Your task to perform on an android device: open app "Facebook" (install if not already installed) and go to login screen Image 0: 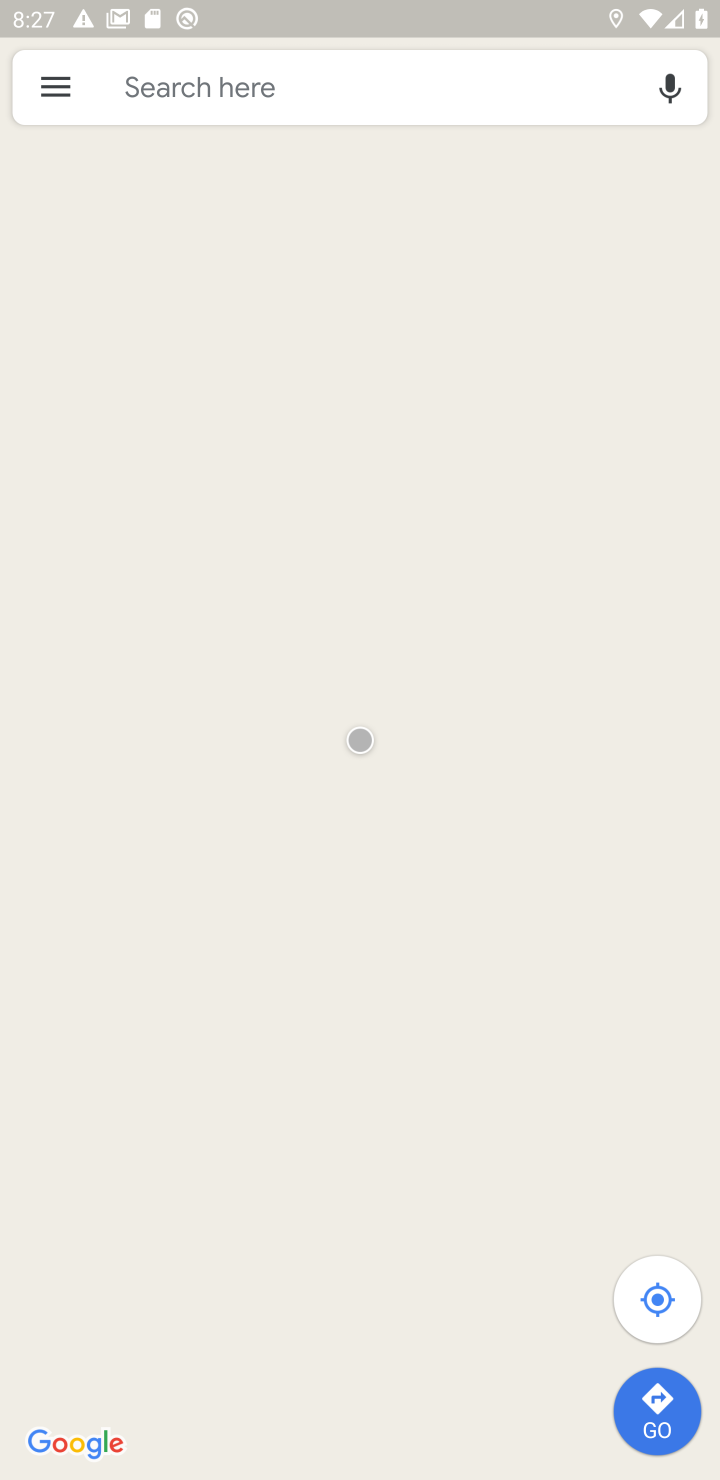
Step 0: press home button
Your task to perform on an android device: open app "Facebook" (install if not already installed) and go to login screen Image 1: 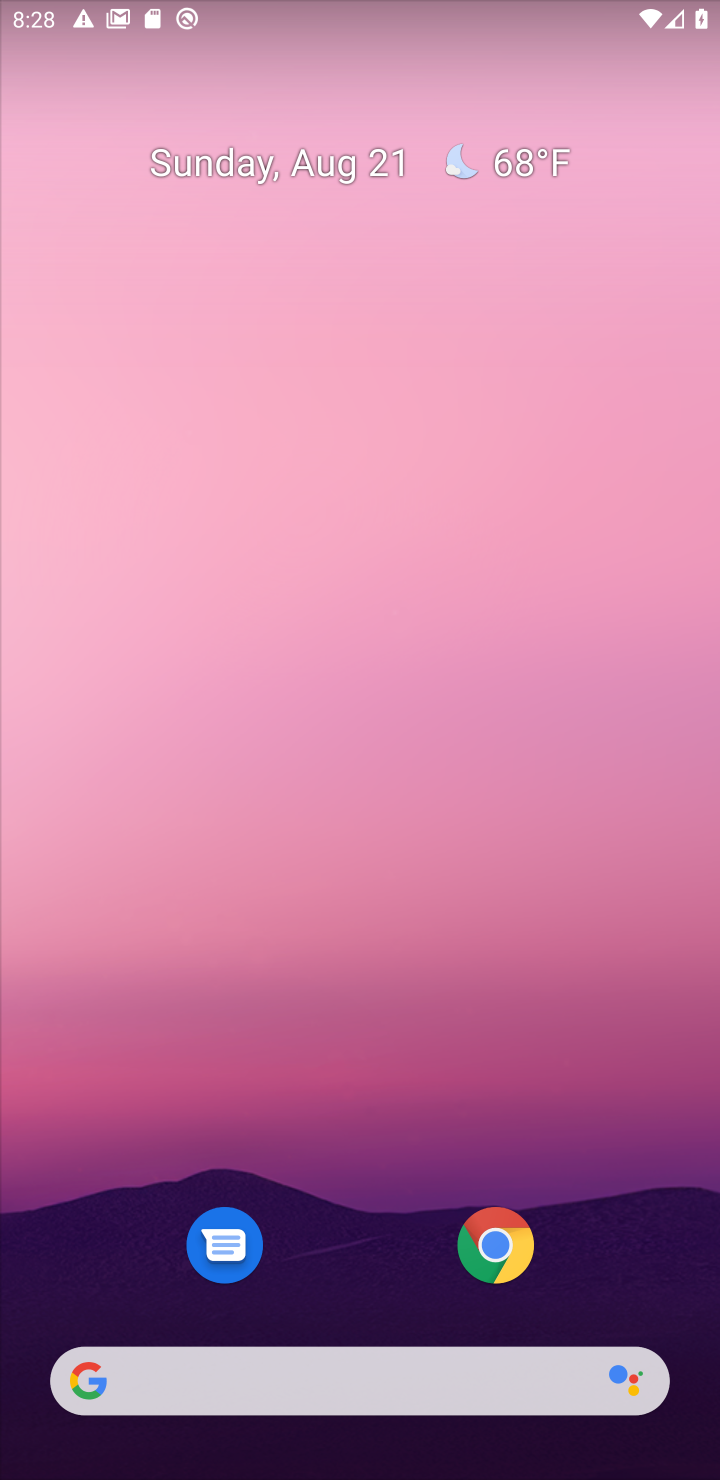
Step 1: drag from (413, 1341) to (637, 5)
Your task to perform on an android device: open app "Facebook" (install if not already installed) and go to login screen Image 2: 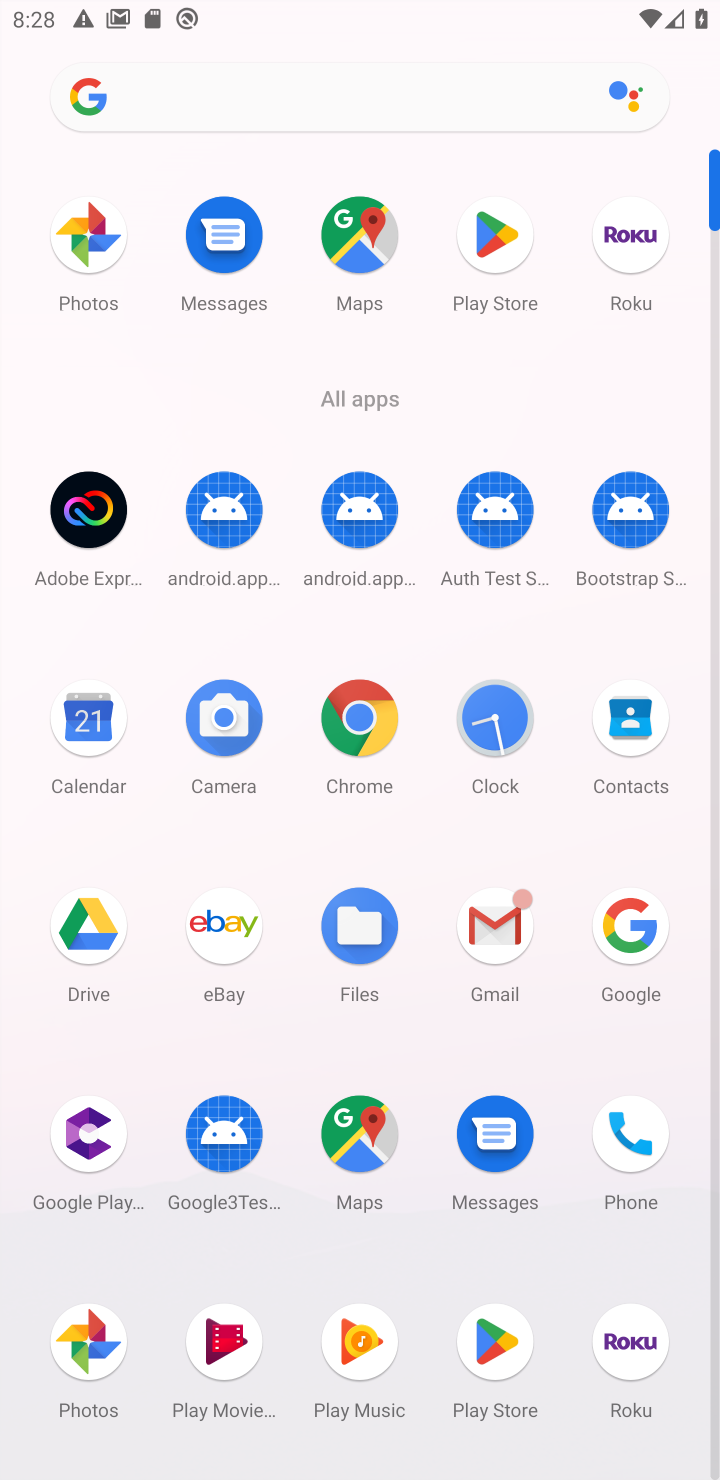
Step 2: click (475, 254)
Your task to perform on an android device: open app "Facebook" (install if not already installed) and go to login screen Image 3: 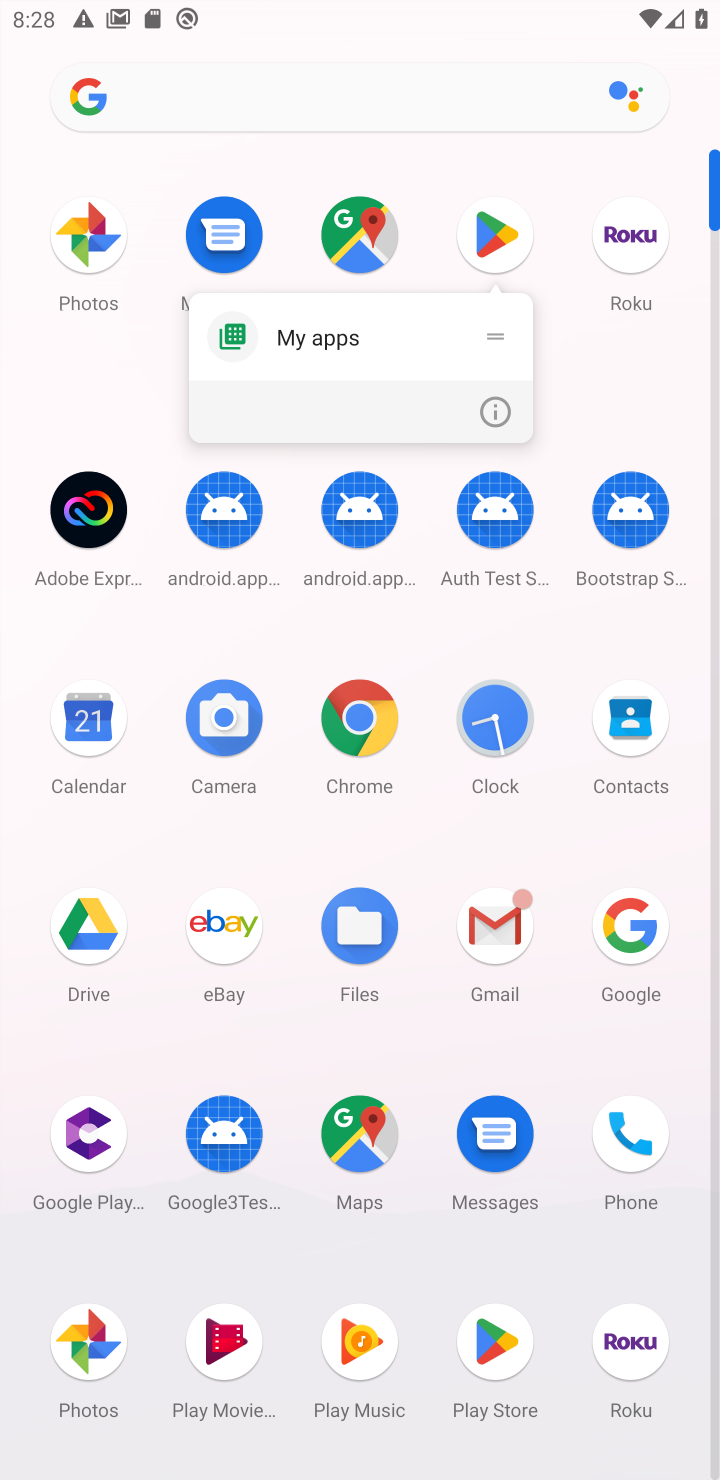
Step 3: click (485, 229)
Your task to perform on an android device: open app "Facebook" (install if not already installed) and go to login screen Image 4: 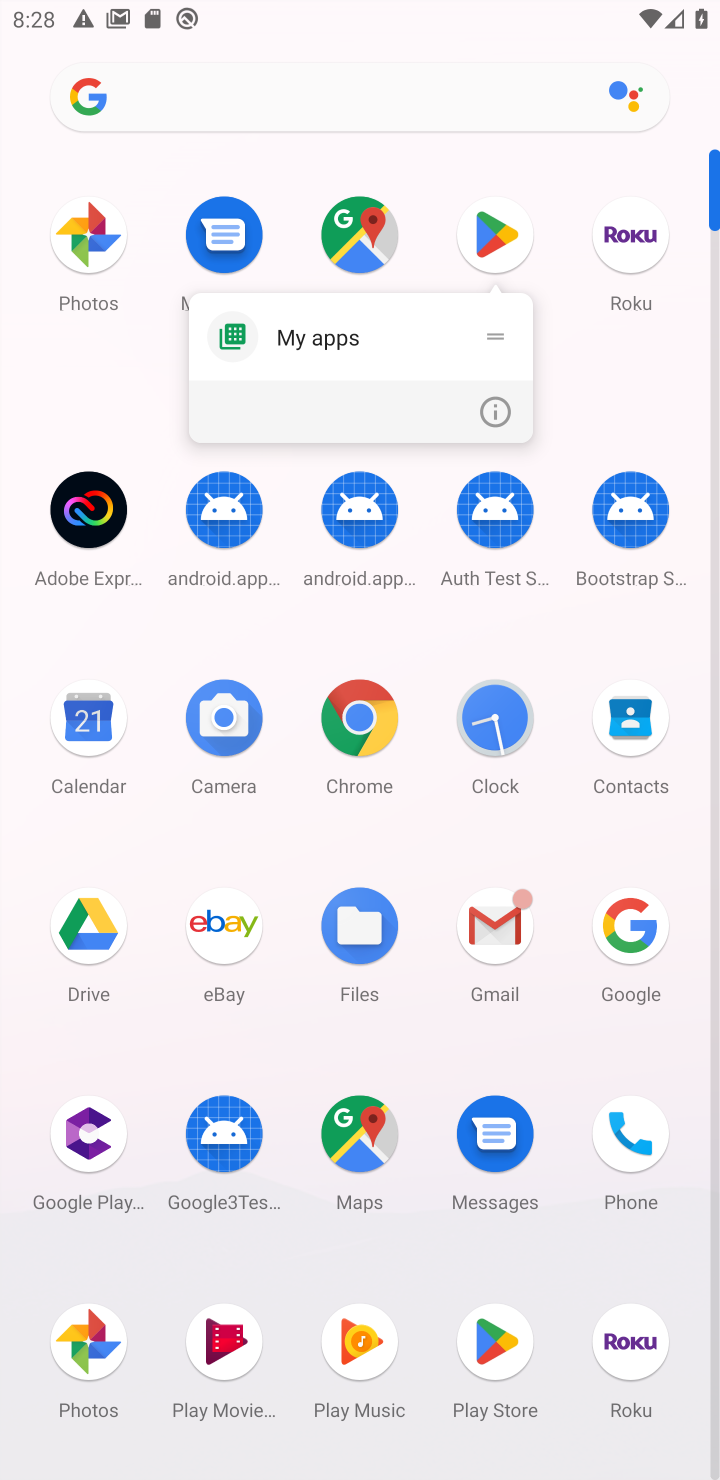
Step 4: click (448, 221)
Your task to perform on an android device: open app "Facebook" (install if not already installed) and go to login screen Image 5: 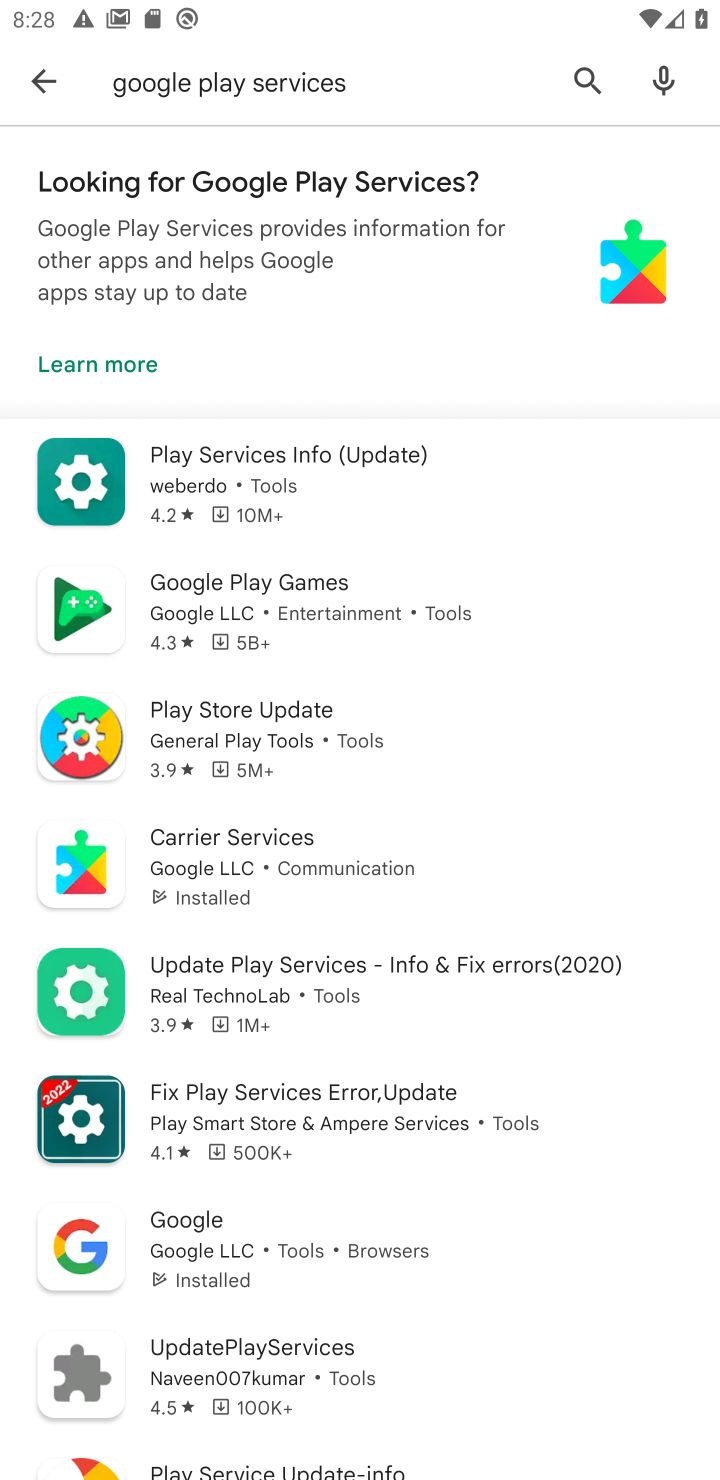
Step 5: click (26, 81)
Your task to perform on an android device: open app "Facebook" (install if not already installed) and go to login screen Image 6: 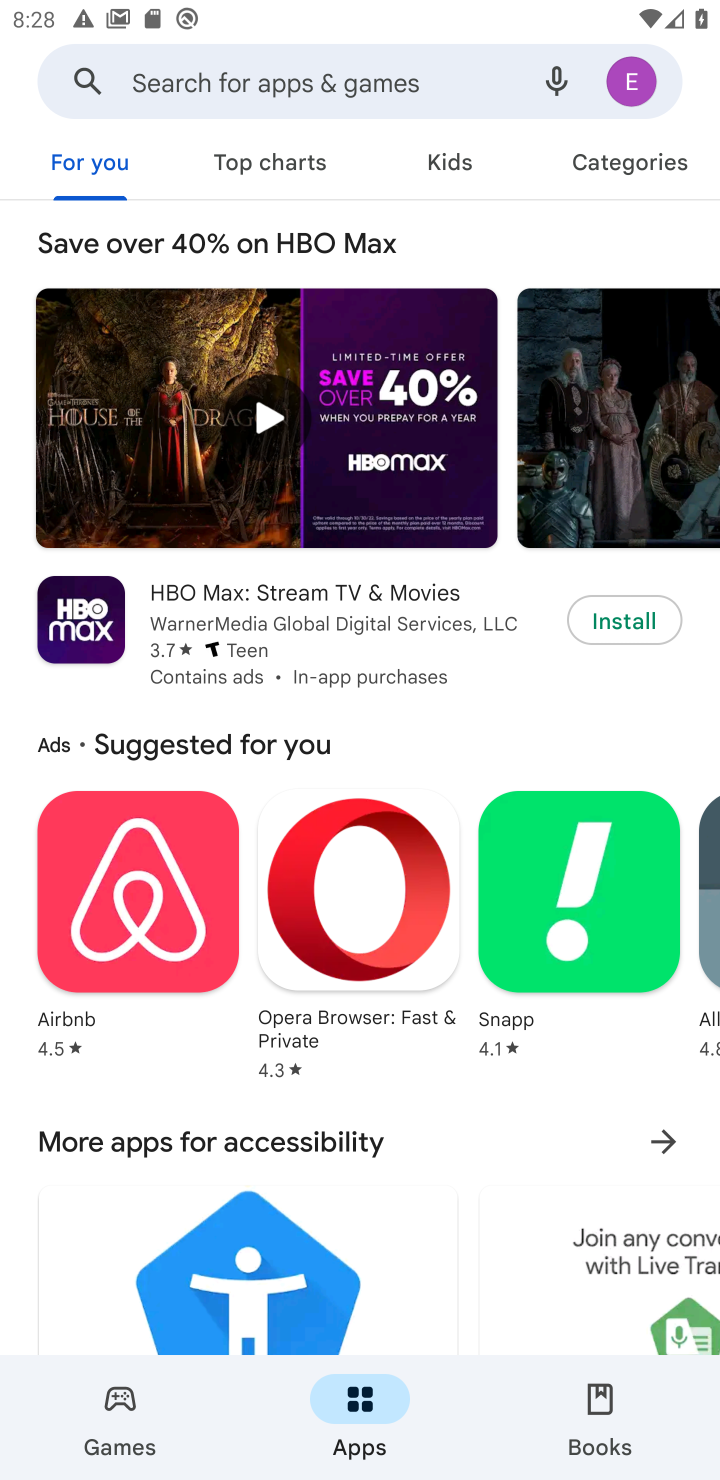
Step 6: click (314, 72)
Your task to perform on an android device: open app "Facebook" (install if not already installed) and go to login screen Image 7: 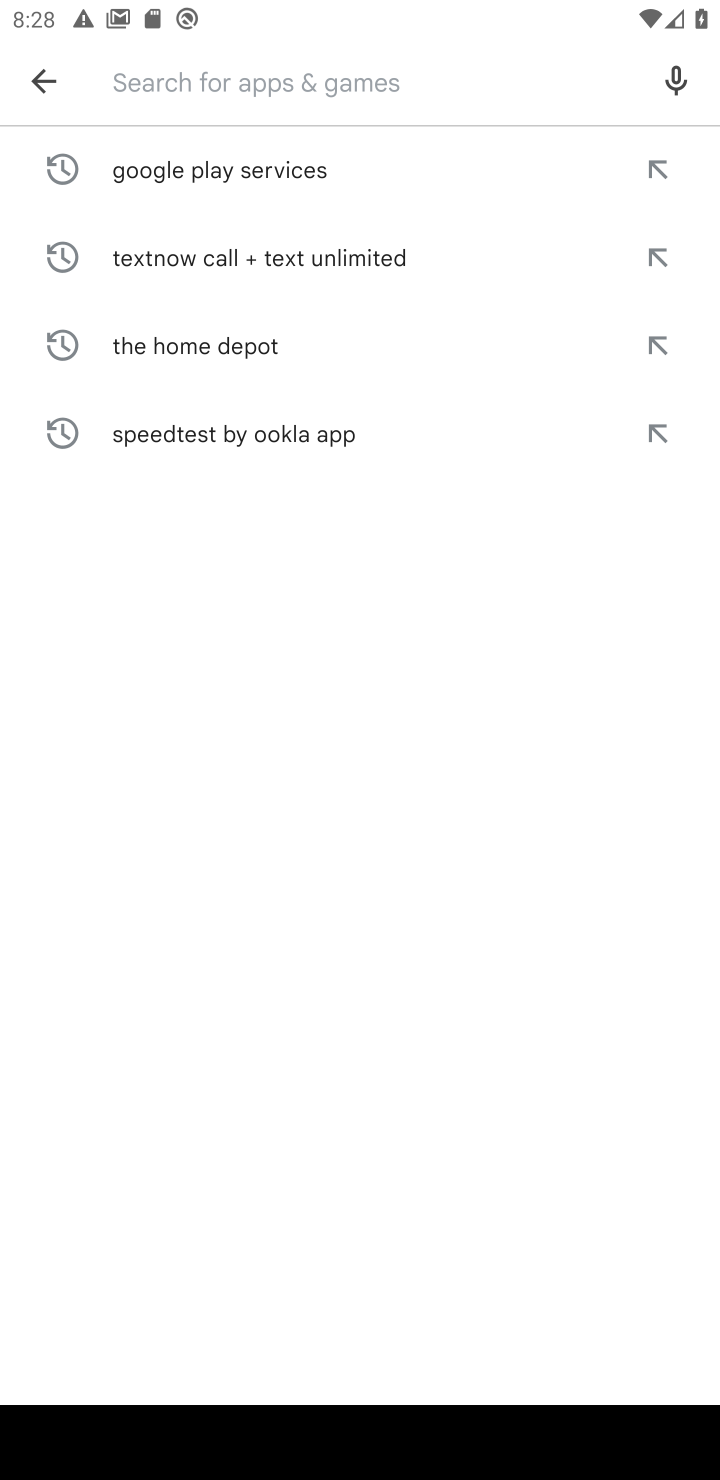
Step 7: type "Facebook"
Your task to perform on an android device: open app "Facebook" (install if not already installed) and go to login screen Image 8: 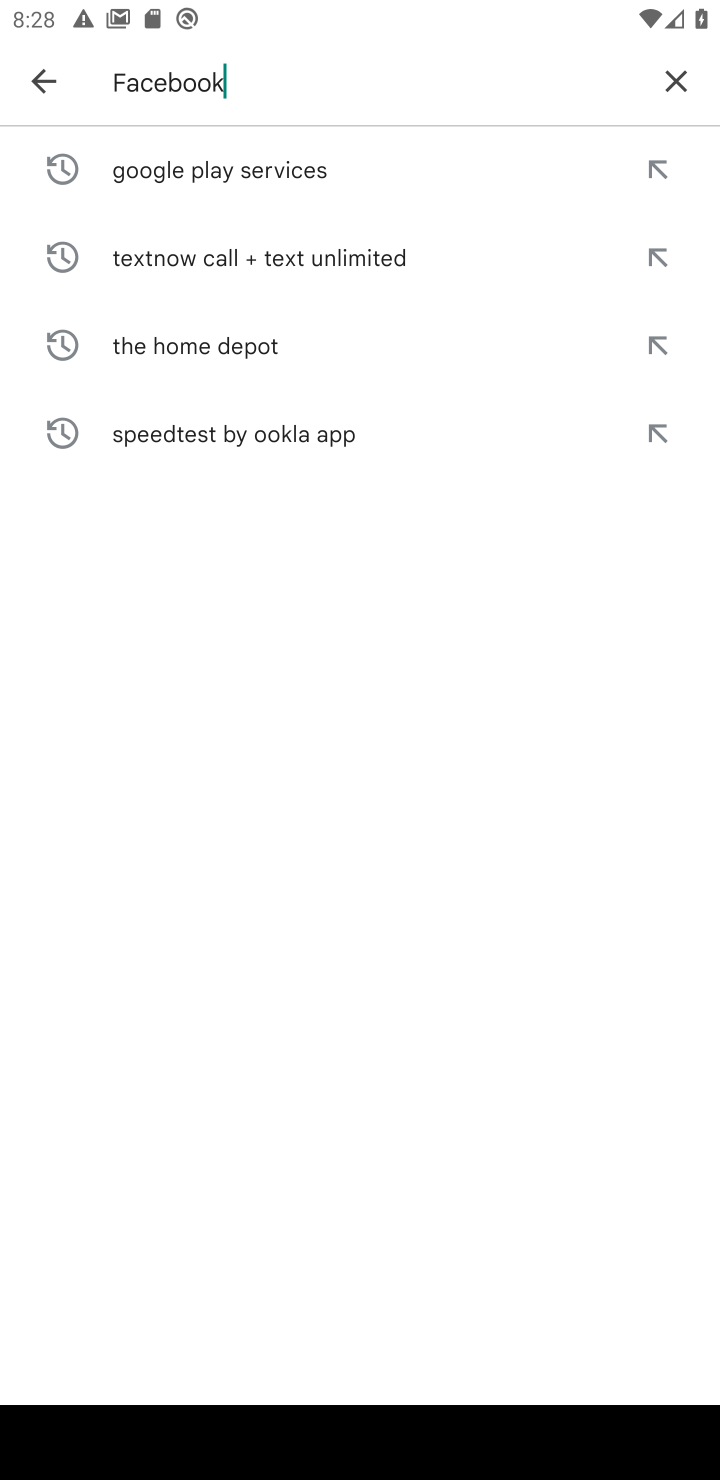
Step 8: type ""
Your task to perform on an android device: open app "Facebook" (install if not already installed) and go to login screen Image 9: 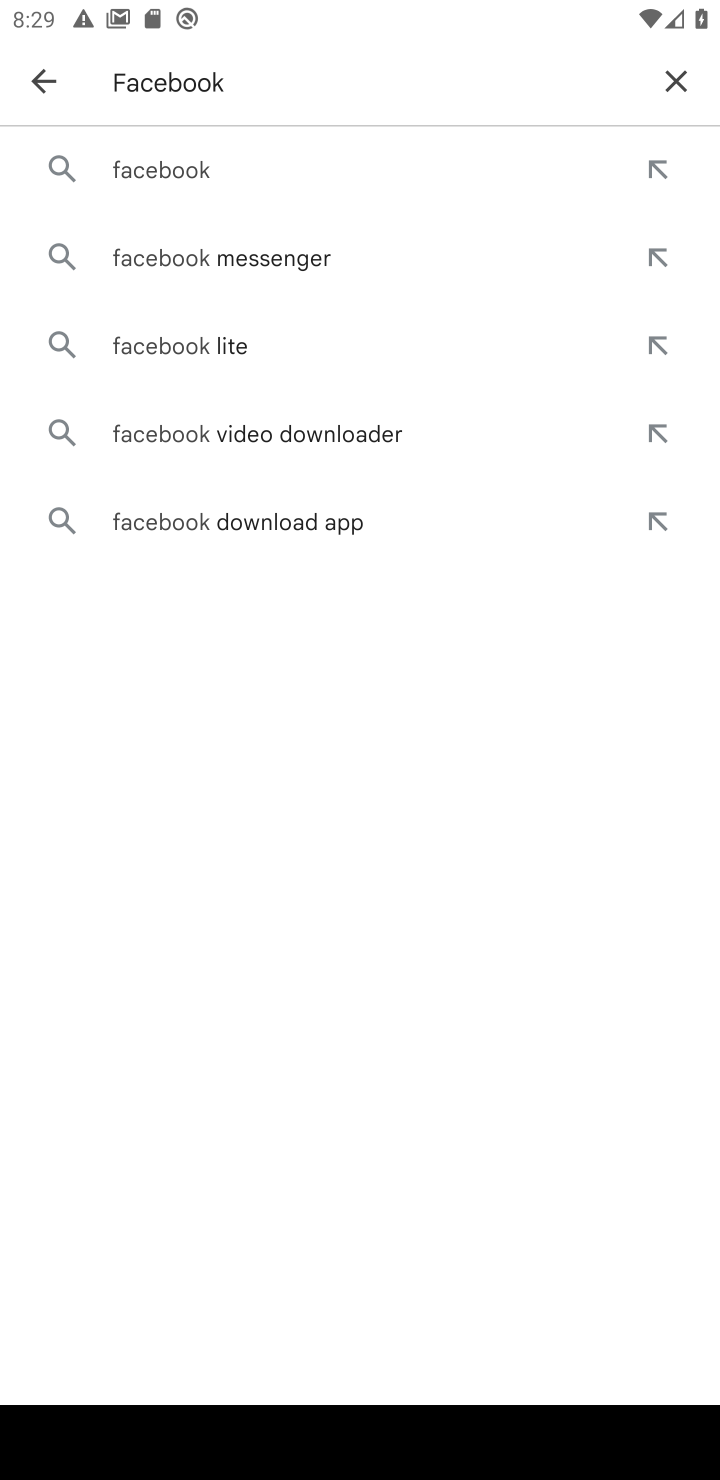
Step 9: click (185, 192)
Your task to perform on an android device: open app "Facebook" (install if not already installed) and go to login screen Image 10: 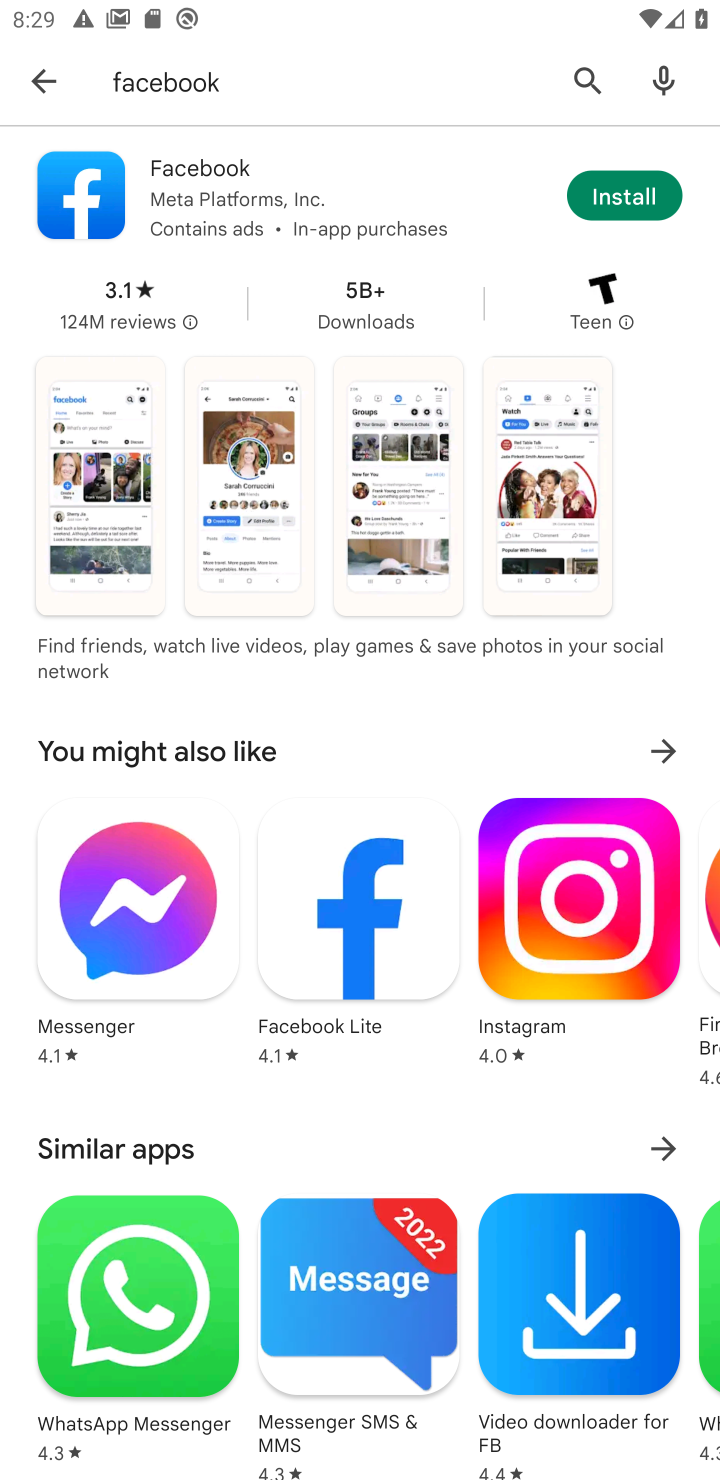
Step 10: click (578, 187)
Your task to perform on an android device: open app "Facebook" (install if not already installed) and go to login screen Image 11: 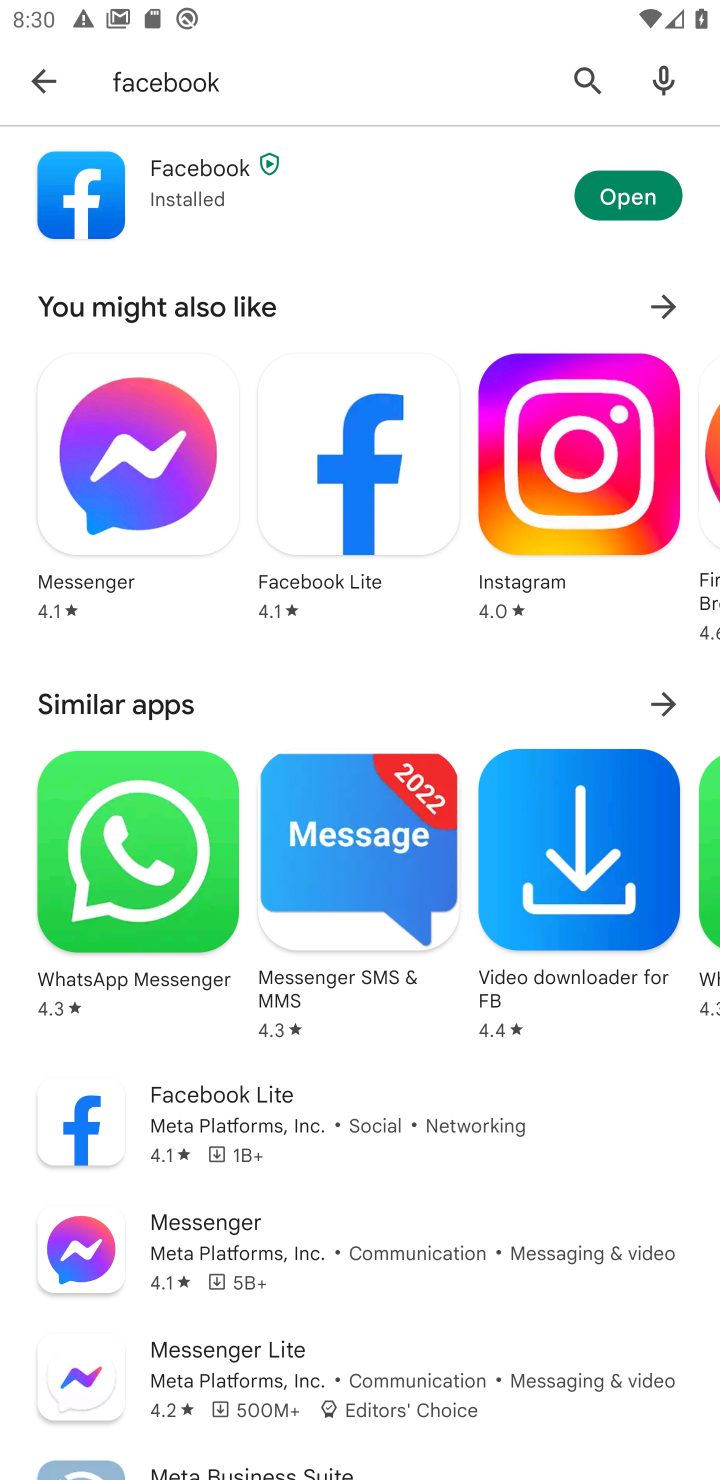
Step 11: click (637, 205)
Your task to perform on an android device: open app "Facebook" (install if not already installed) and go to login screen Image 12: 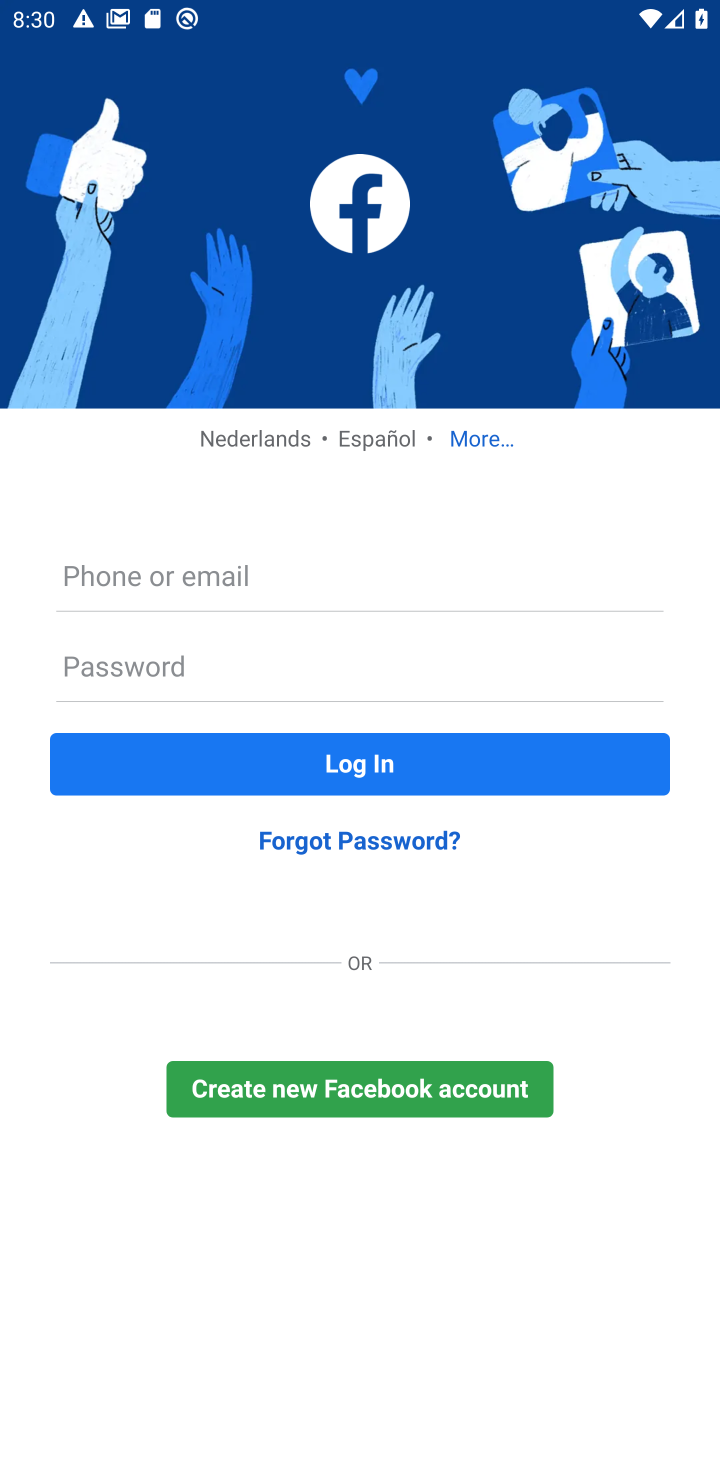
Step 12: task complete